Your task to perform on an android device: turn on improve location accuracy Image 0: 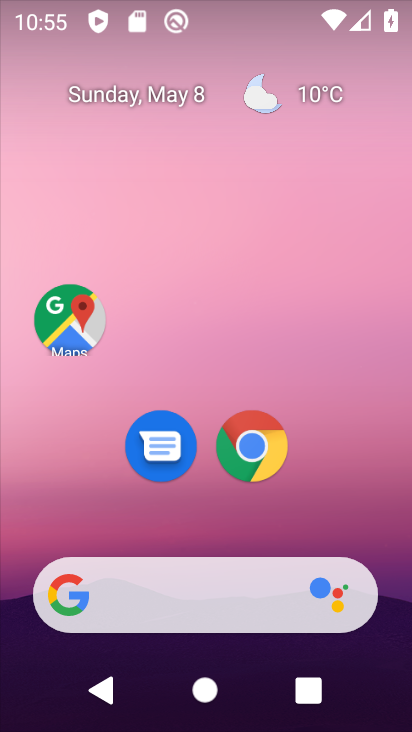
Step 0: drag from (332, 525) to (298, 8)
Your task to perform on an android device: turn on improve location accuracy Image 1: 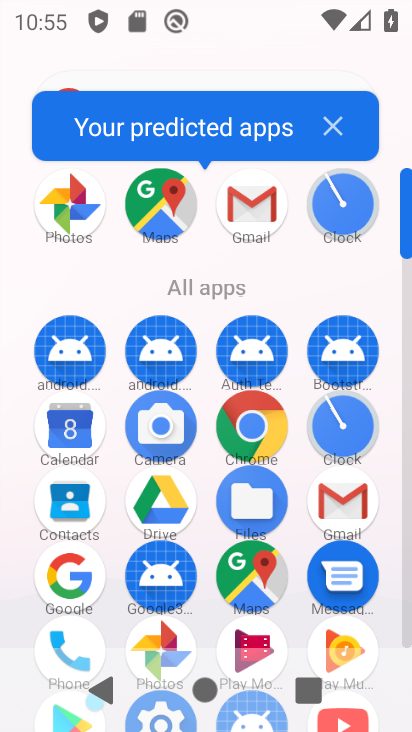
Step 1: drag from (233, 618) to (216, 238)
Your task to perform on an android device: turn on improve location accuracy Image 2: 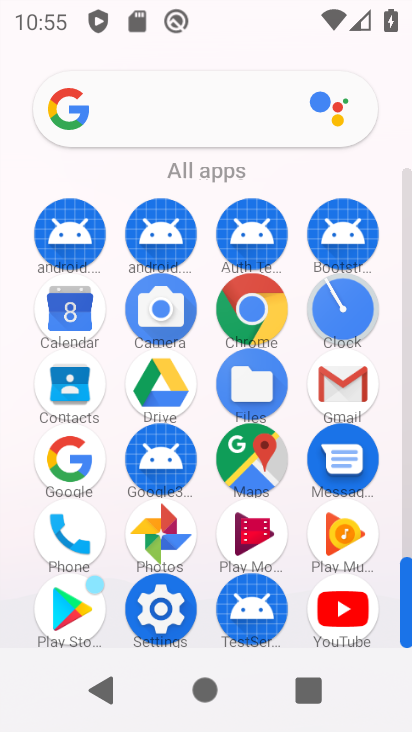
Step 2: click (153, 602)
Your task to perform on an android device: turn on improve location accuracy Image 3: 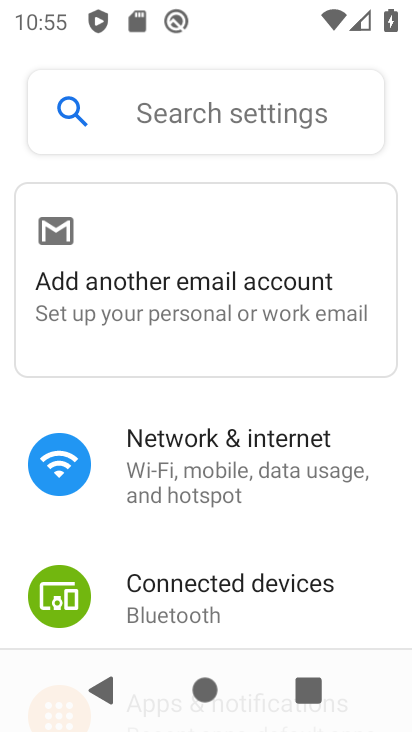
Step 3: drag from (217, 558) to (219, 203)
Your task to perform on an android device: turn on improve location accuracy Image 4: 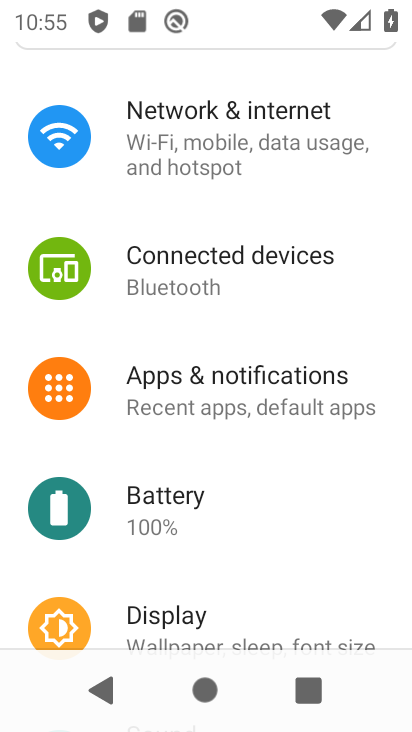
Step 4: drag from (233, 584) to (227, 225)
Your task to perform on an android device: turn on improve location accuracy Image 5: 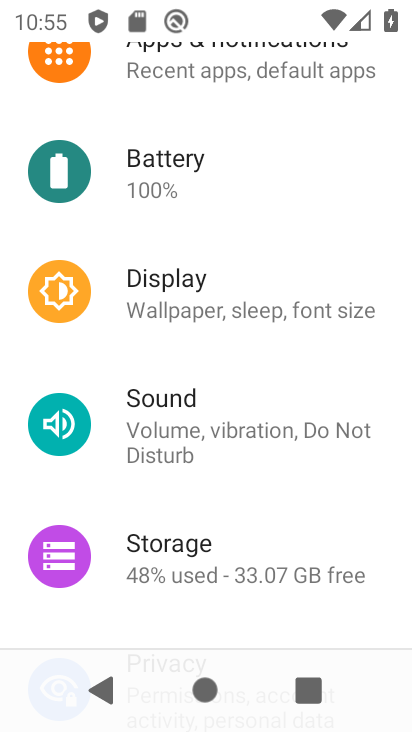
Step 5: drag from (236, 575) to (213, 319)
Your task to perform on an android device: turn on improve location accuracy Image 6: 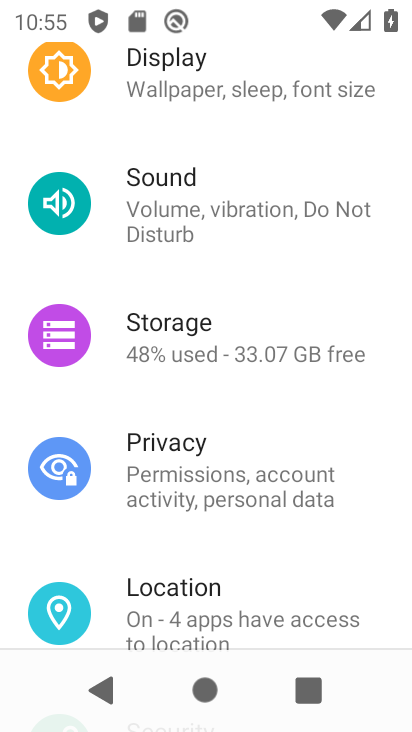
Step 6: click (205, 602)
Your task to perform on an android device: turn on improve location accuracy Image 7: 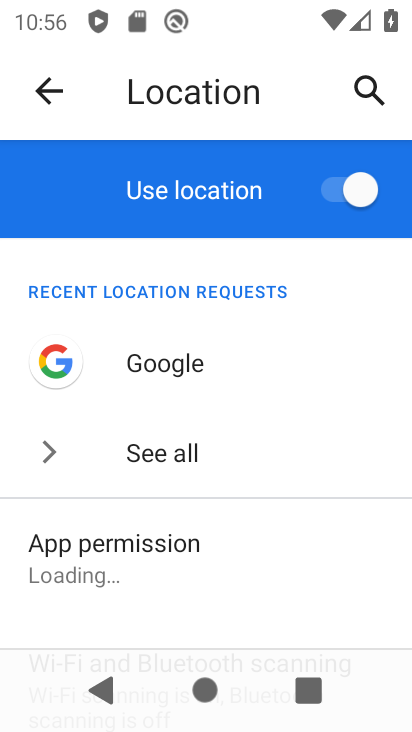
Step 7: drag from (199, 610) to (231, 243)
Your task to perform on an android device: turn on improve location accuracy Image 8: 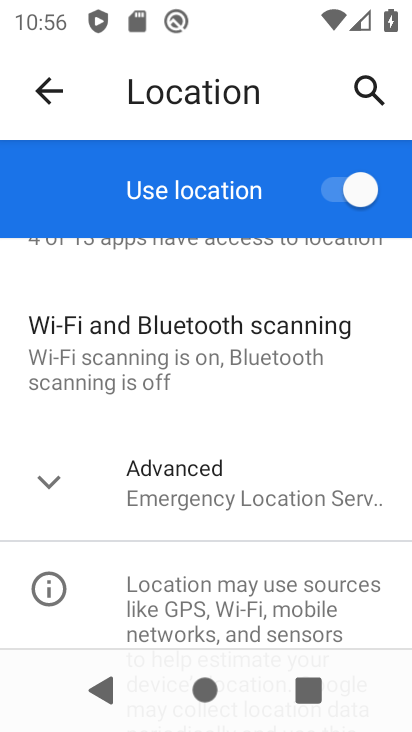
Step 8: click (194, 467)
Your task to perform on an android device: turn on improve location accuracy Image 9: 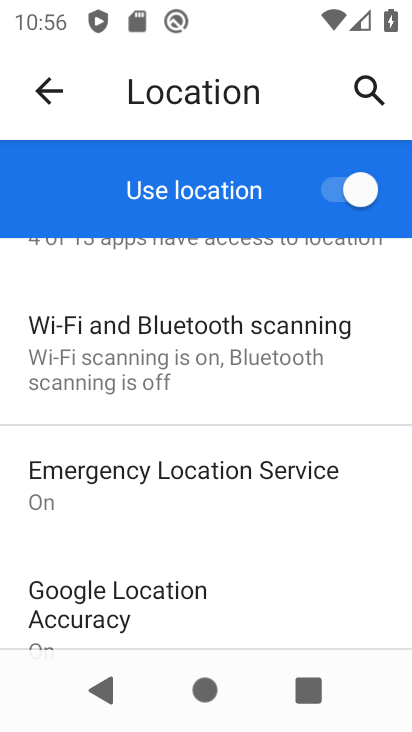
Step 9: click (164, 614)
Your task to perform on an android device: turn on improve location accuracy Image 10: 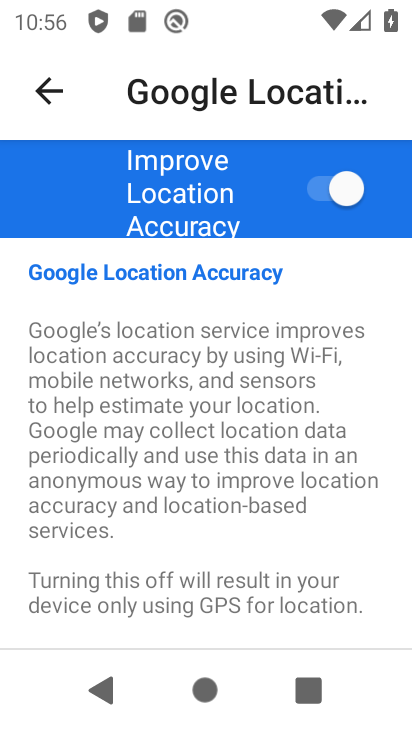
Step 10: task complete